Your task to perform on an android device: change the clock display to analog Image 0: 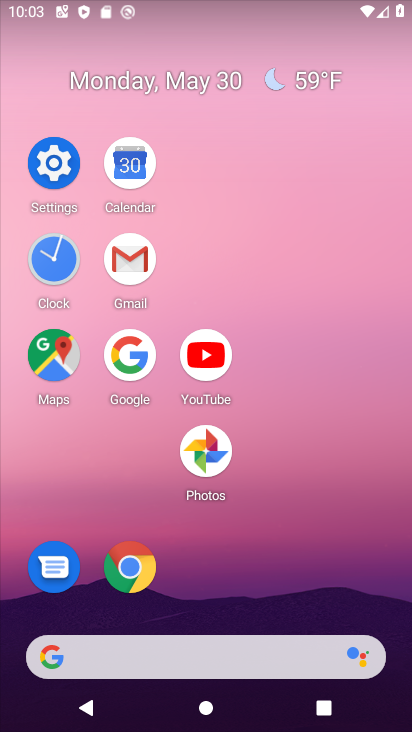
Step 0: click (62, 185)
Your task to perform on an android device: change the clock display to analog Image 1: 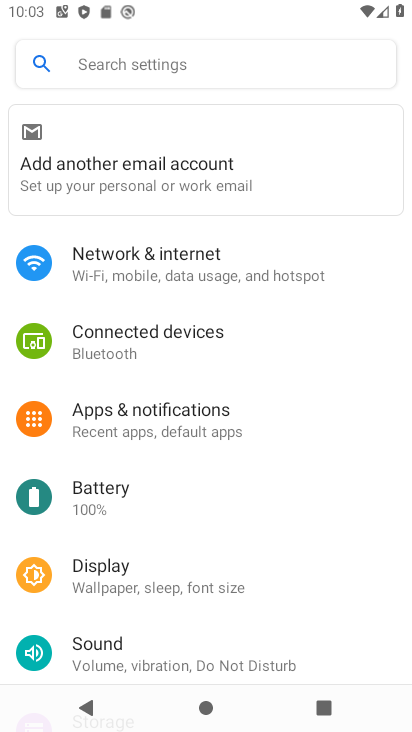
Step 1: press home button
Your task to perform on an android device: change the clock display to analog Image 2: 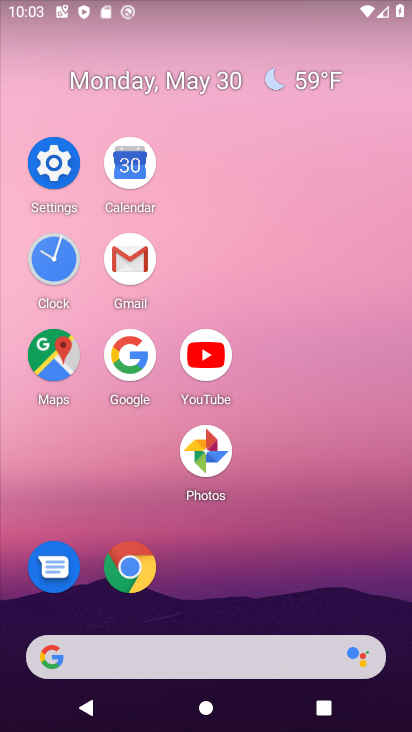
Step 2: drag from (272, 571) to (238, 209)
Your task to perform on an android device: change the clock display to analog Image 3: 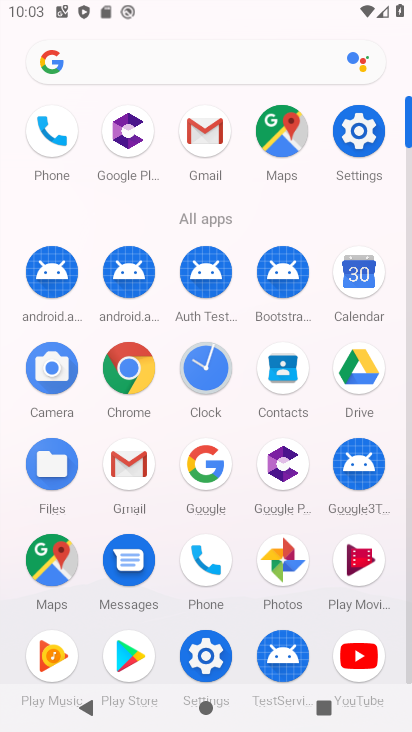
Step 3: click (216, 389)
Your task to perform on an android device: change the clock display to analog Image 4: 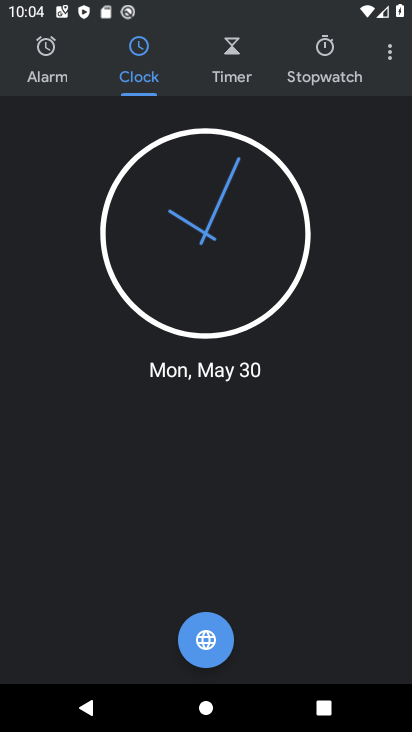
Step 4: click (382, 49)
Your task to perform on an android device: change the clock display to analog Image 5: 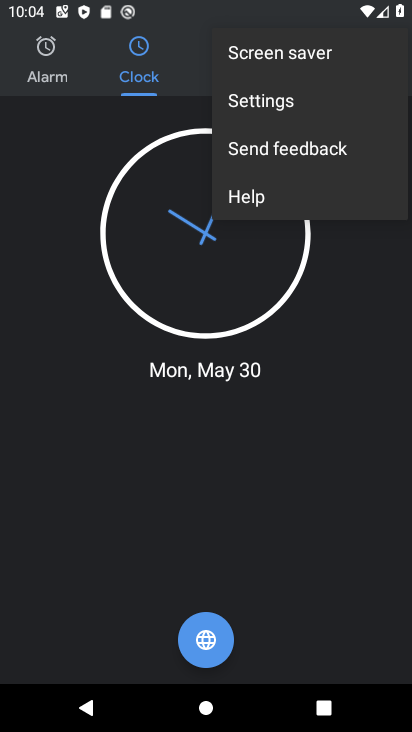
Step 5: click (313, 95)
Your task to perform on an android device: change the clock display to analog Image 6: 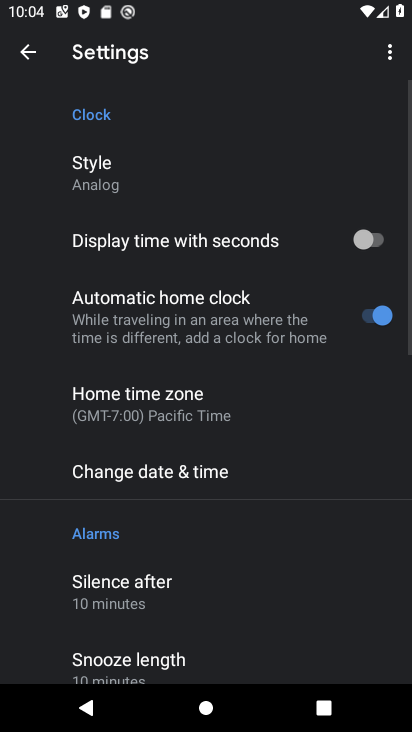
Step 6: click (181, 162)
Your task to perform on an android device: change the clock display to analog Image 7: 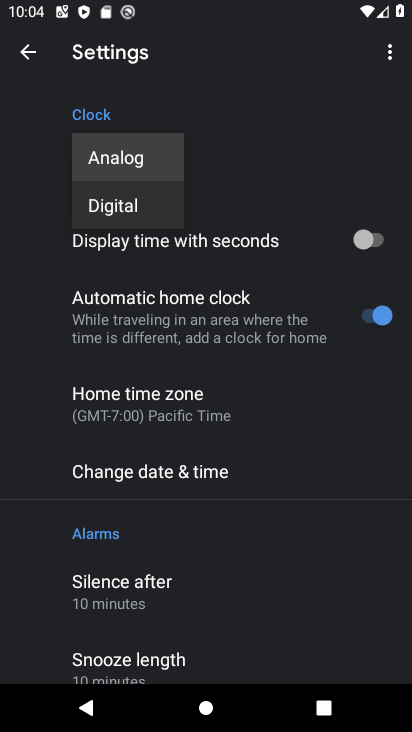
Step 7: task complete